Your task to perform on an android device: turn off javascript in the chrome app Image 0: 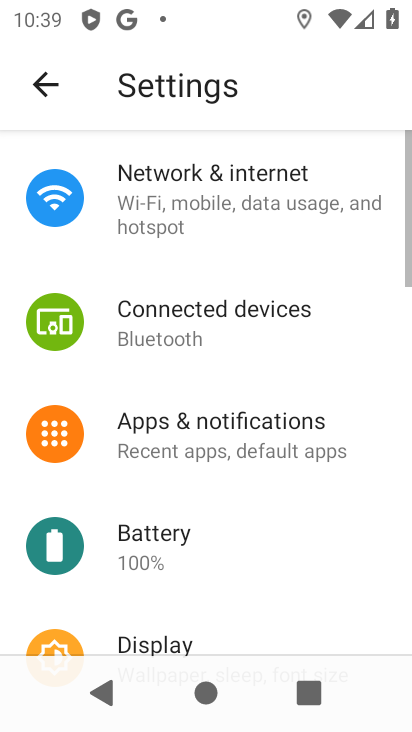
Step 0: press home button
Your task to perform on an android device: turn off javascript in the chrome app Image 1: 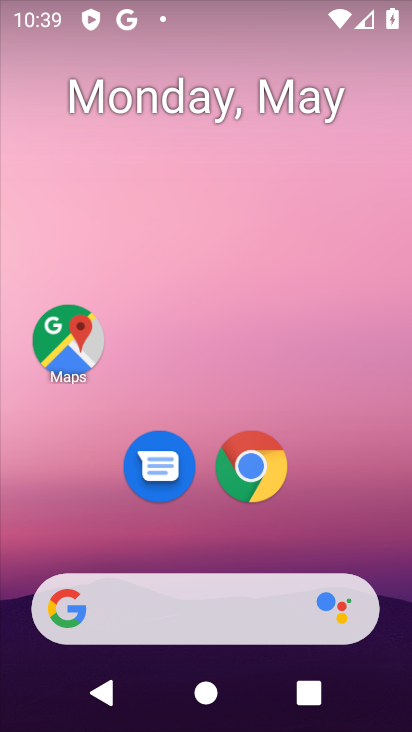
Step 1: click (247, 463)
Your task to perform on an android device: turn off javascript in the chrome app Image 2: 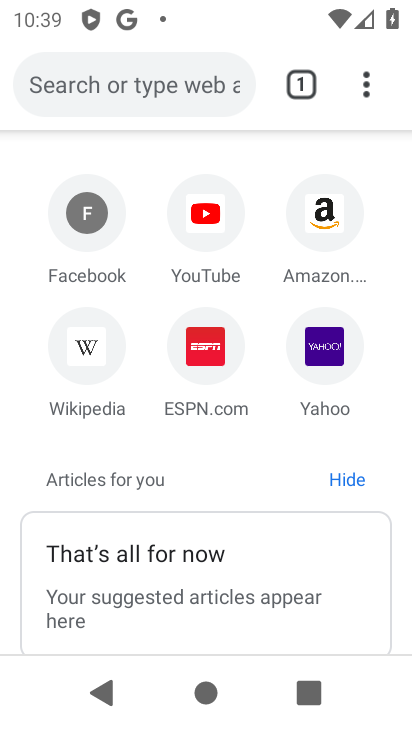
Step 2: click (366, 76)
Your task to perform on an android device: turn off javascript in the chrome app Image 3: 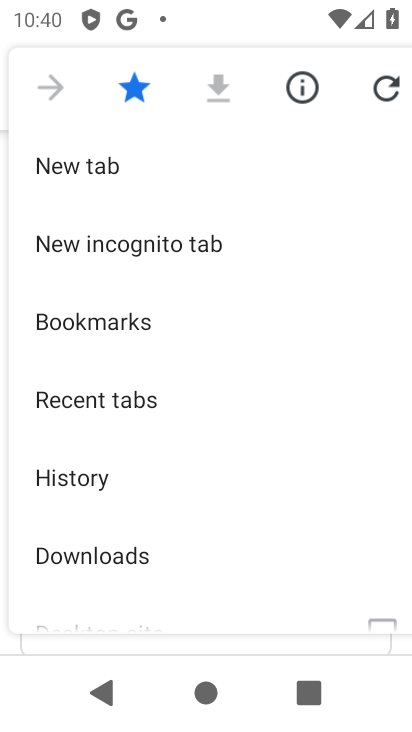
Step 3: drag from (248, 548) to (240, 275)
Your task to perform on an android device: turn off javascript in the chrome app Image 4: 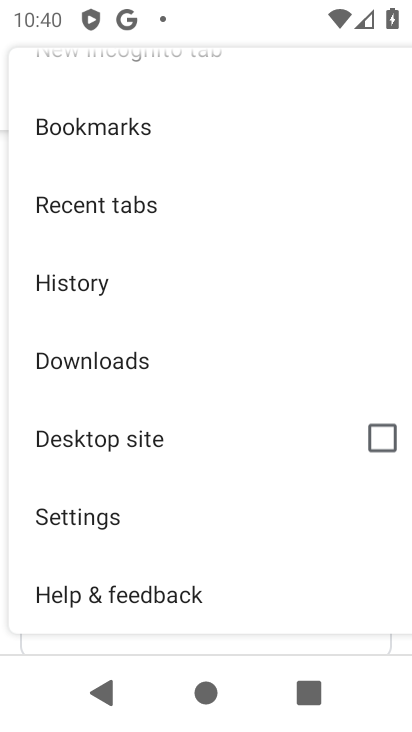
Step 4: click (105, 522)
Your task to perform on an android device: turn off javascript in the chrome app Image 5: 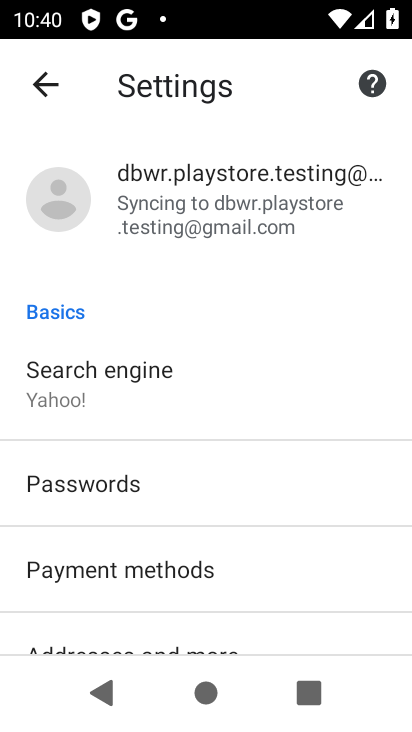
Step 5: drag from (237, 535) to (235, 254)
Your task to perform on an android device: turn off javascript in the chrome app Image 6: 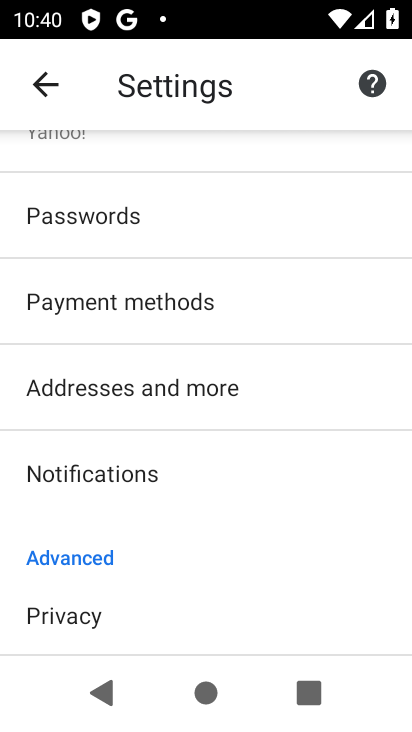
Step 6: drag from (235, 508) to (240, 242)
Your task to perform on an android device: turn off javascript in the chrome app Image 7: 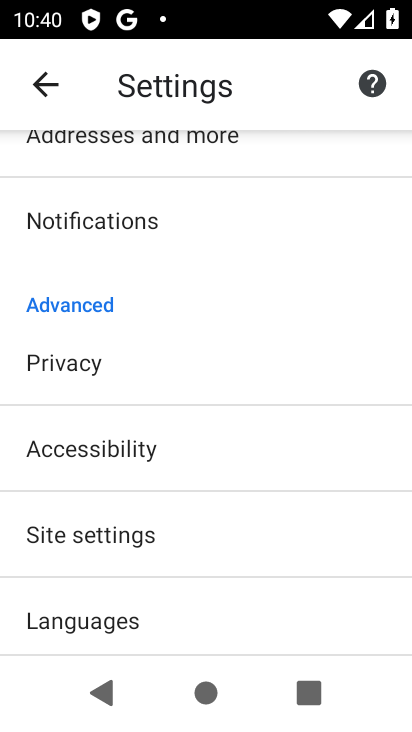
Step 7: click (137, 526)
Your task to perform on an android device: turn off javascript in the chrome app Image 8: 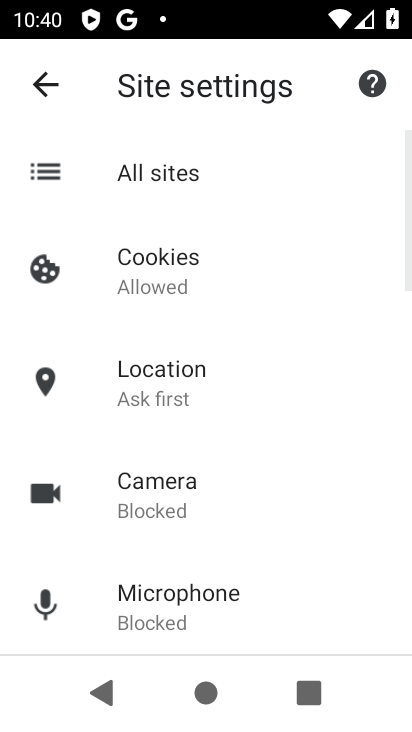
Step 8: drag from (242, 528) to (224, 243)
Your task to perform on an android device: turn off javascript in the chrome app Image 9: 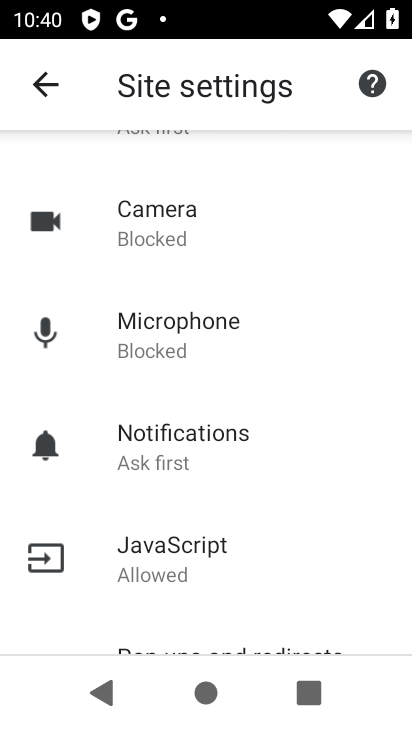
Step 9: drag from (264, 485) to (263, 216)
Your task to perform on an android device: turn off javascript in the chrome app Image 10: 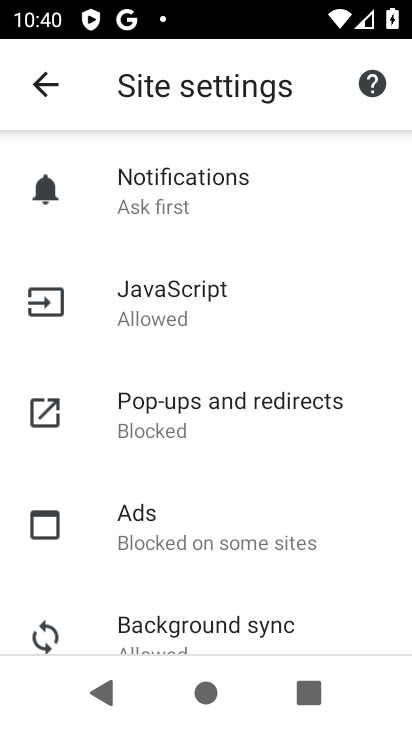
Step 10: click (177, 285)
Your task to perform on an android device: turn off javascript in the chrome app Image 11: 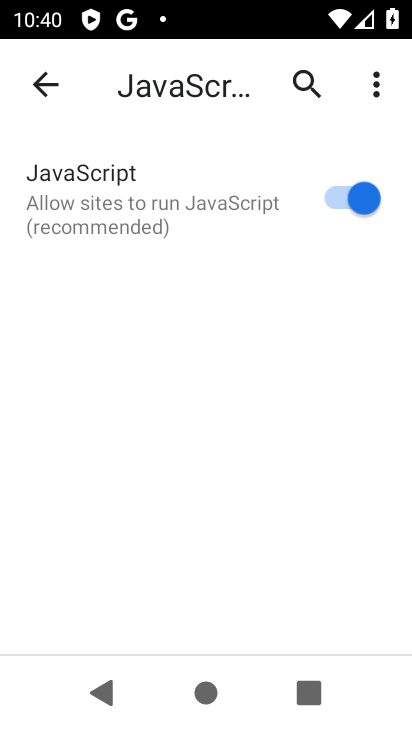
Step 11: click (349, 198)
Your task to perform on an android device: turn off javascript in the chrome app Image 12: 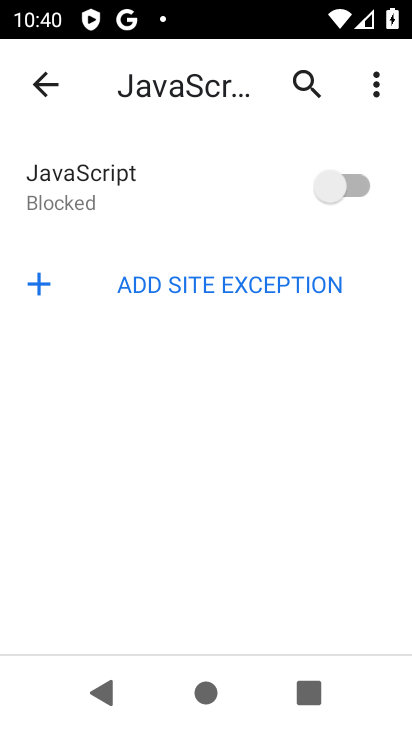
Step 12: task complete